Your task to perform on an android device: see creations saved in the google photos Image 0: 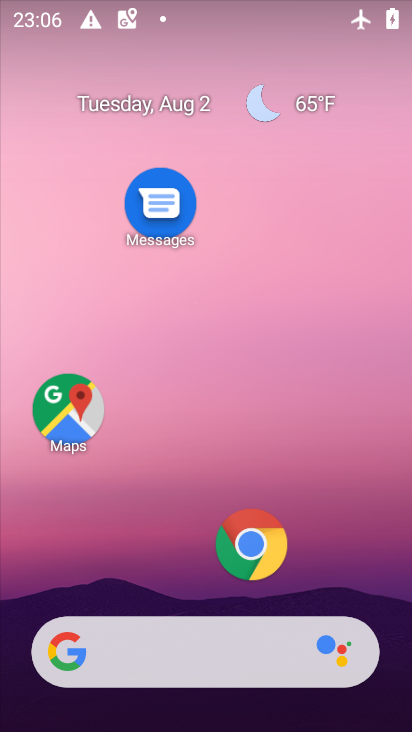
Step 0: drag from (186, 586) to (174, 206)
Your task to perform on an android device: see creations saved in the google photos Image 1: 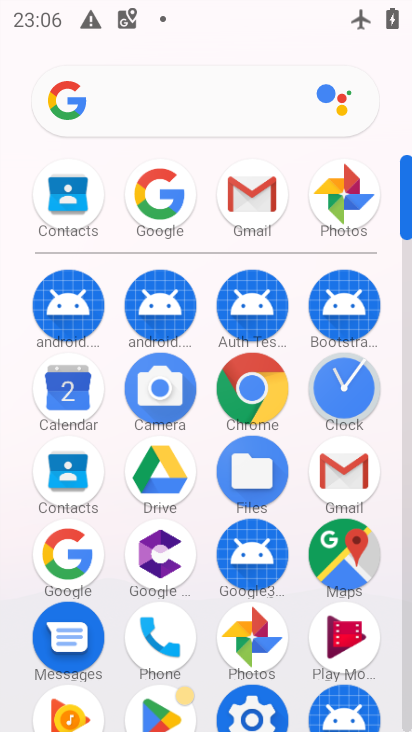
Step 1: click (333, 206)
Your task to perform on an android device: see creations saved in the google photos Image 2: 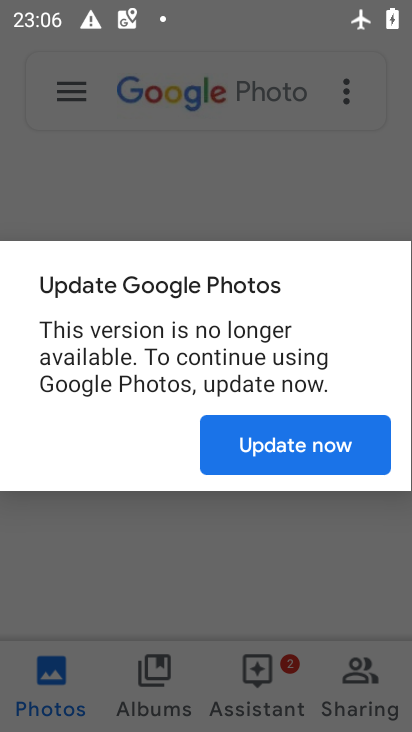
Step 2: click (337, 436)
Your task to perform on an android device: see creations saved in the google photos Image 3: 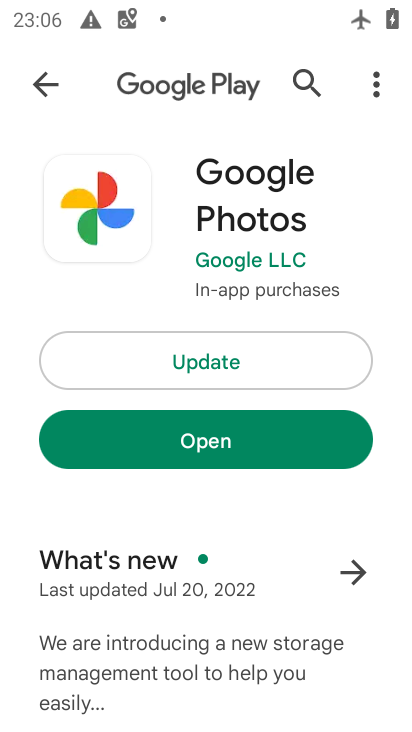
Step 3: click (191, 459)
Your task to perform on an android device: see creations saved in the google photos Image 4: 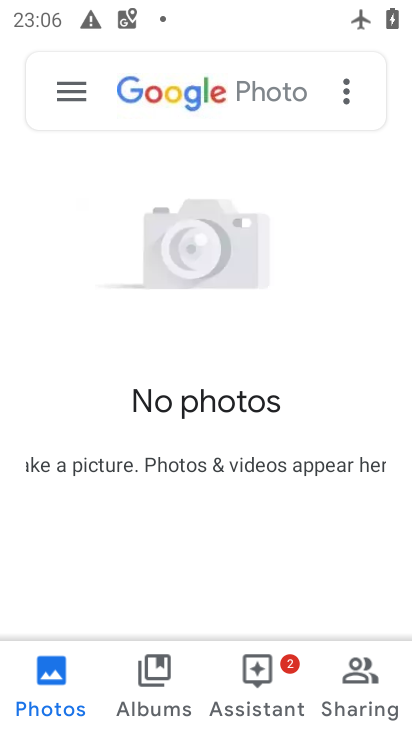
Step 4: click (171, 76)
Your task to perform on an android device: see creations saved in the google photos Image 5: 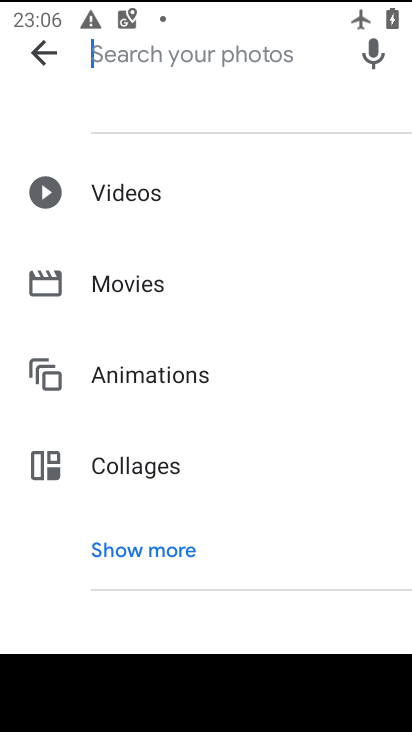
Step 5: click (161, 550)
Your task to perform on an android device: see creations saved in the google photos Image 6: 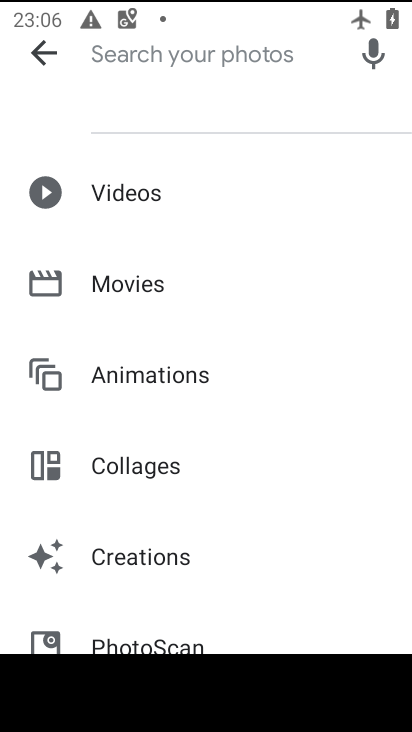
Step 6: click (172, 547)
Your task to perform on an android device: see creations saved in the google photos Image 7: 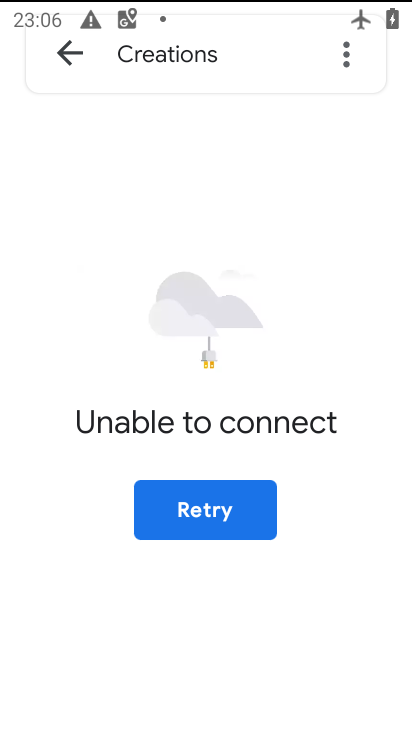
Step 7: task complete